Your task to perform on an android device: choose inbox layout in the gmail app Image 0: 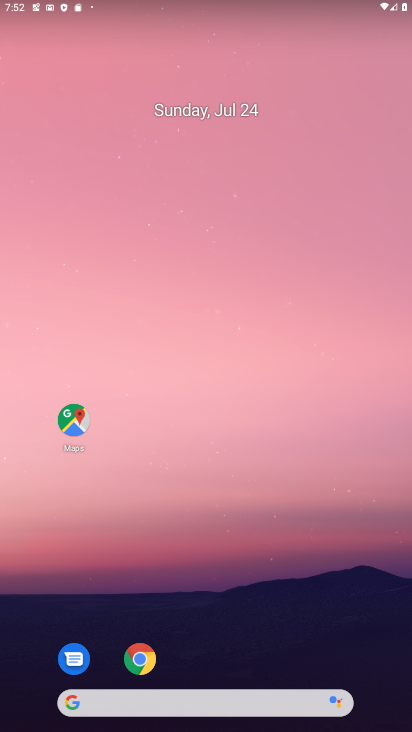
Step 0: drag from (261, 672) to (254, 0)
Your task to perform on an android device: choose inbox layout in the gmail app Image 1: 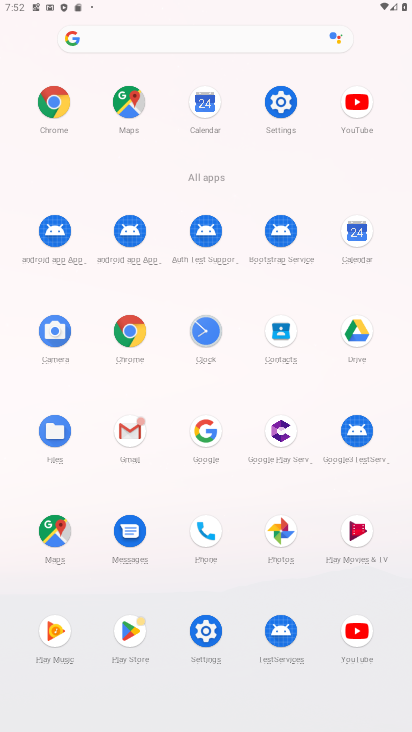
Step 1: click (129, 432)
Your task to perform on an android device: choose inbox layout in the gmail app Image 2: 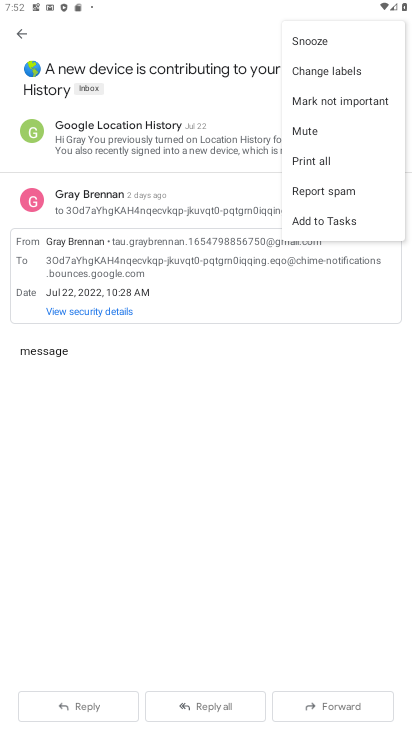
Step 2: click (220, 384)
Your task to perform on an android device: choose inbox layout in the gmail app Image 3: 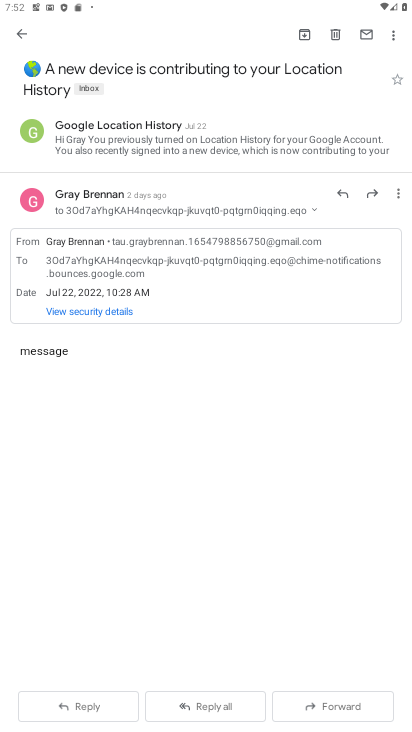
Step 3: click (18, 34)
Your task to perform on an android device: choose inbox layout in the gmail app Image 4: 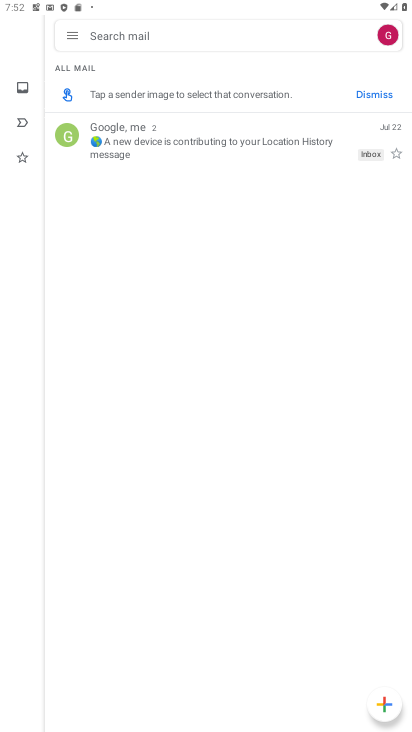
Step 4: click (74, 37)
Your task to perform on an android device: choose inbox layout in the gmail app Image 5: 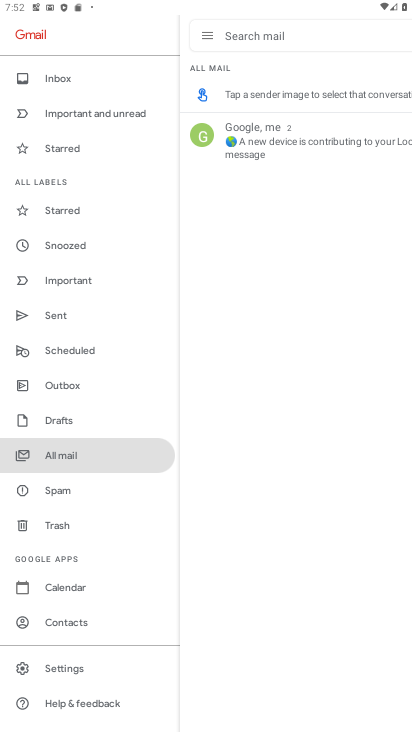
Step 5: click (69, 674)
Your task to perform on an android device: choose inbox layout in the gmail app Image 6: 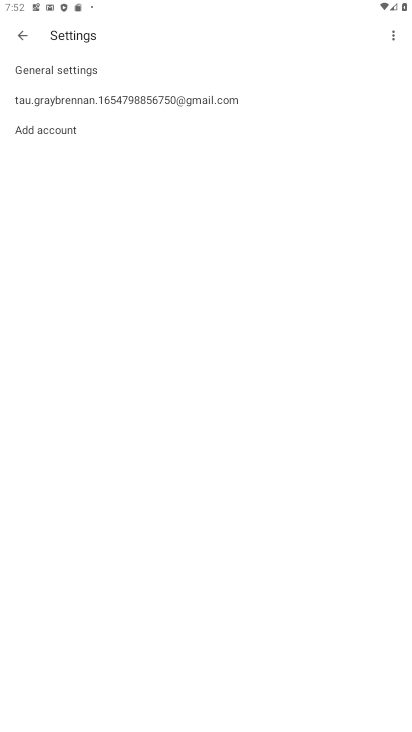
Step 6: click (69, 101)
Your task to perform on an android device: choose inbox layout in the gmail app Image 7: 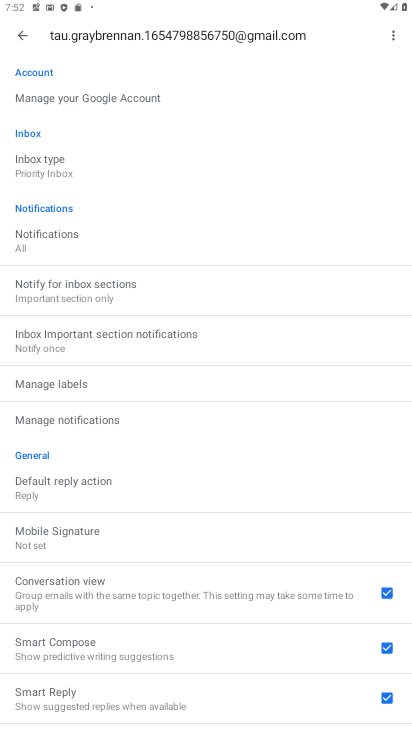
Step 7: click (25, 163)
Your task to perform on an android device: choose inbox layout in the gmail app Image 8: 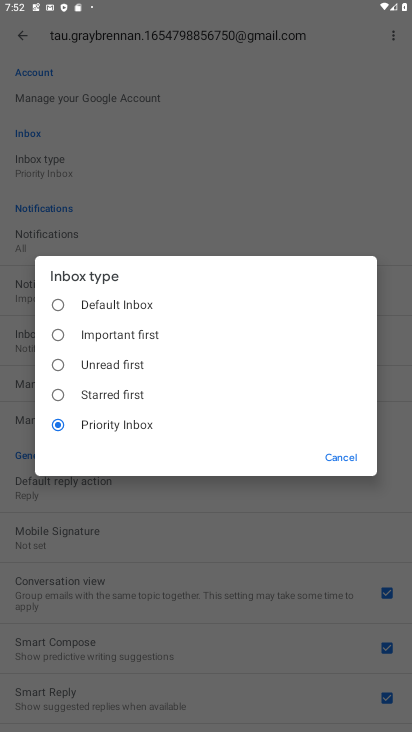
Step 8: click (60, 364)
Your task to perform on an android device: choose inbox layout in the gmail app Image 9: 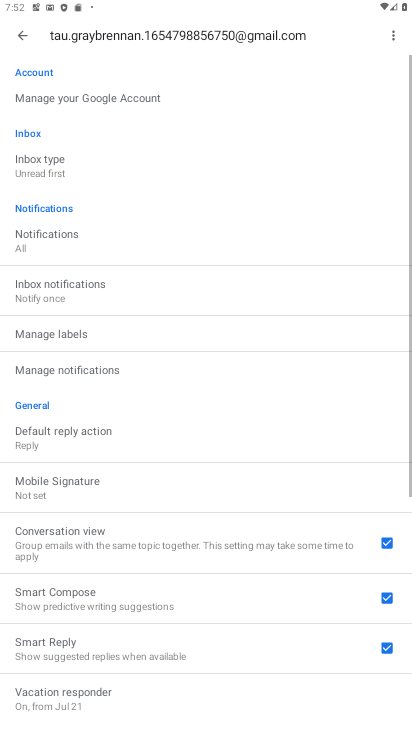
Step 9: task complete